Your task to perform on an android device: toggle data saver in the chrome app Image 0: 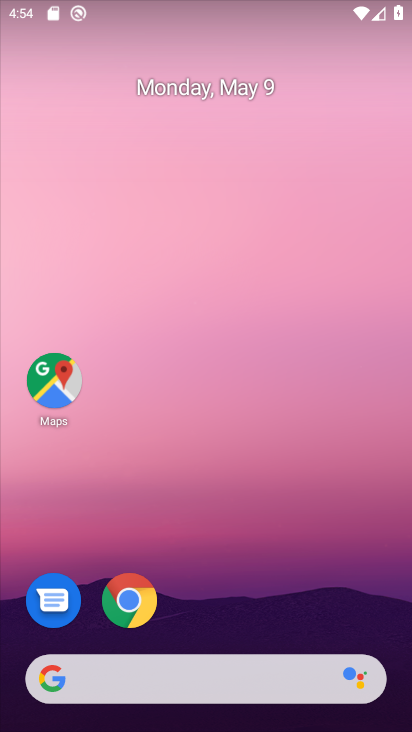
Step 0: drag from (251, 644) to (304, 65)
Your task to perform on an android device: toggle data saver in the chrome app Image 1: 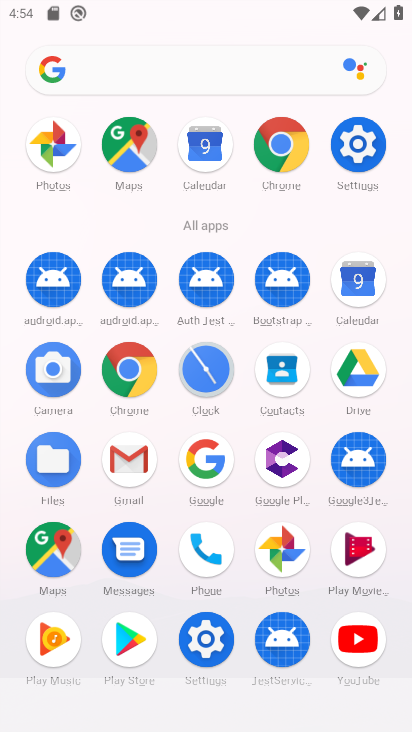
Step 1: click (140, 379)
Your task to perform on an android device: toggle data saver in the chrome app Image 2: 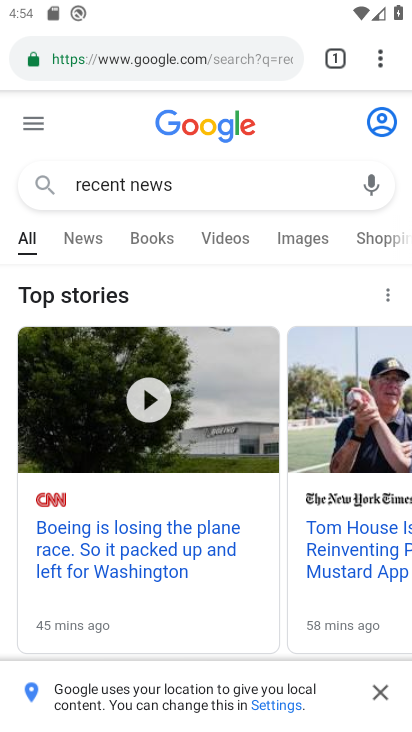
Step 2: drag from (374, 55) to (231, 631)
Your task to perform on an android device: toggle data saver in the chrome app Image 3: 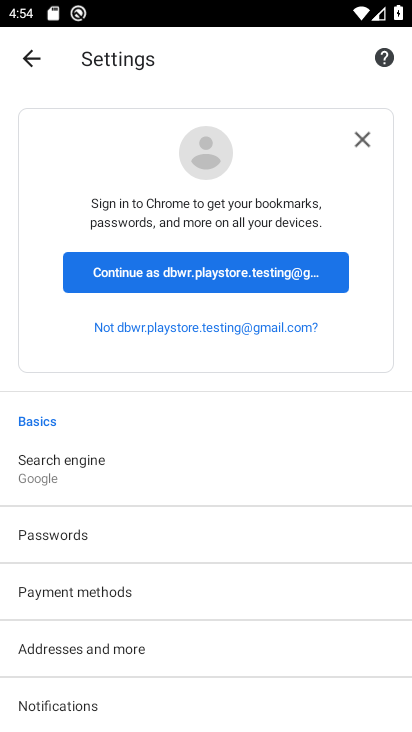
Step 3: drag from (232, 678) to (236, 208)
Your task to perform on an android device: toggle data saver in the chrome app Image 4: 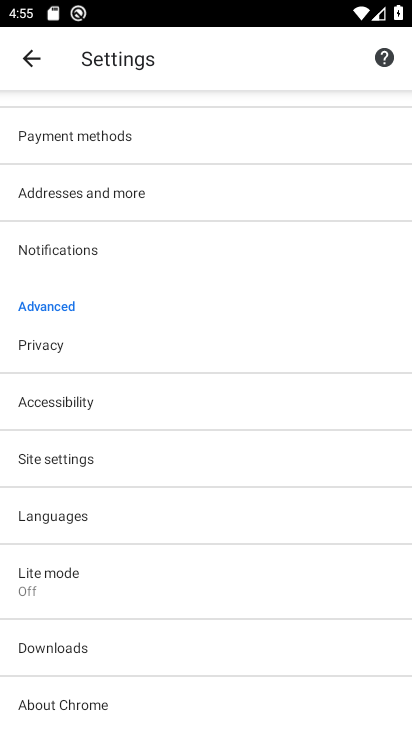
Step 4: click (83, 576)
Your task to perform on an android device: toggle data saver in the chrome app Image 5: 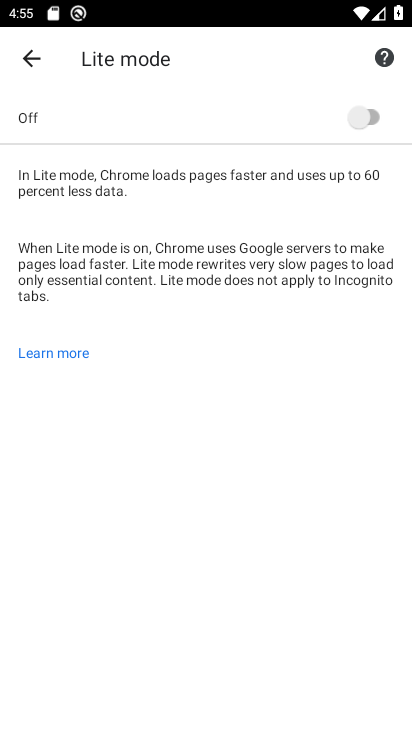
Step 5: click (376, 115)
Your task to perform on an android device: toggle data saver in the chrome app Image 6: 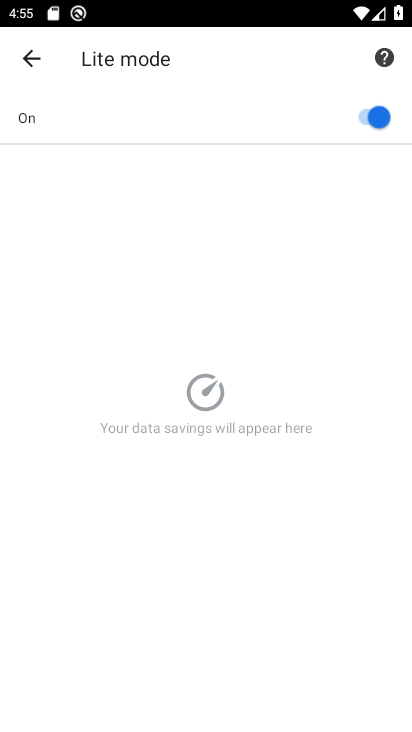
Step 6: task complete